Your task to perform on an android device: turn on wifi Image 0: 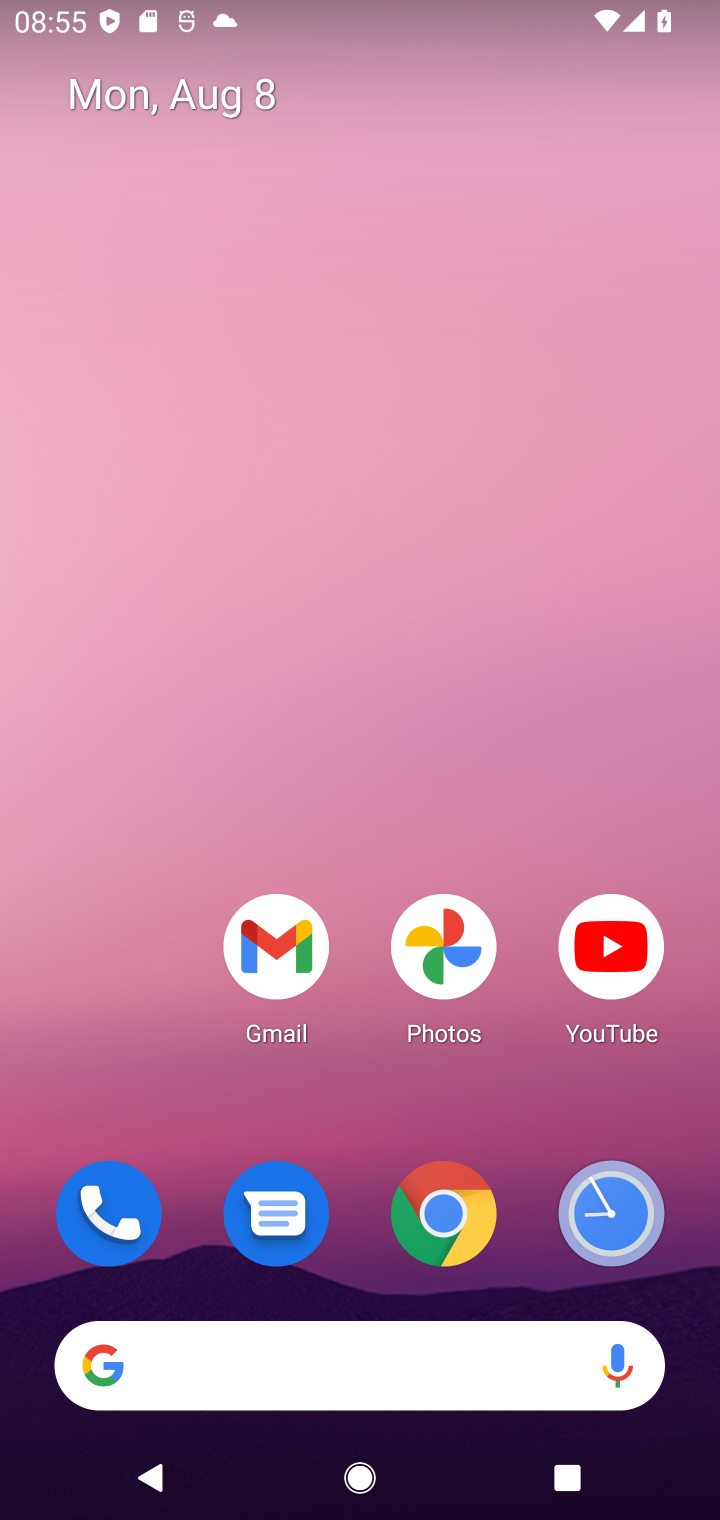
Step 0: drag from (304, 689) to (224, 3)
Your task to perform on an android device: turn on wifi Image 1: 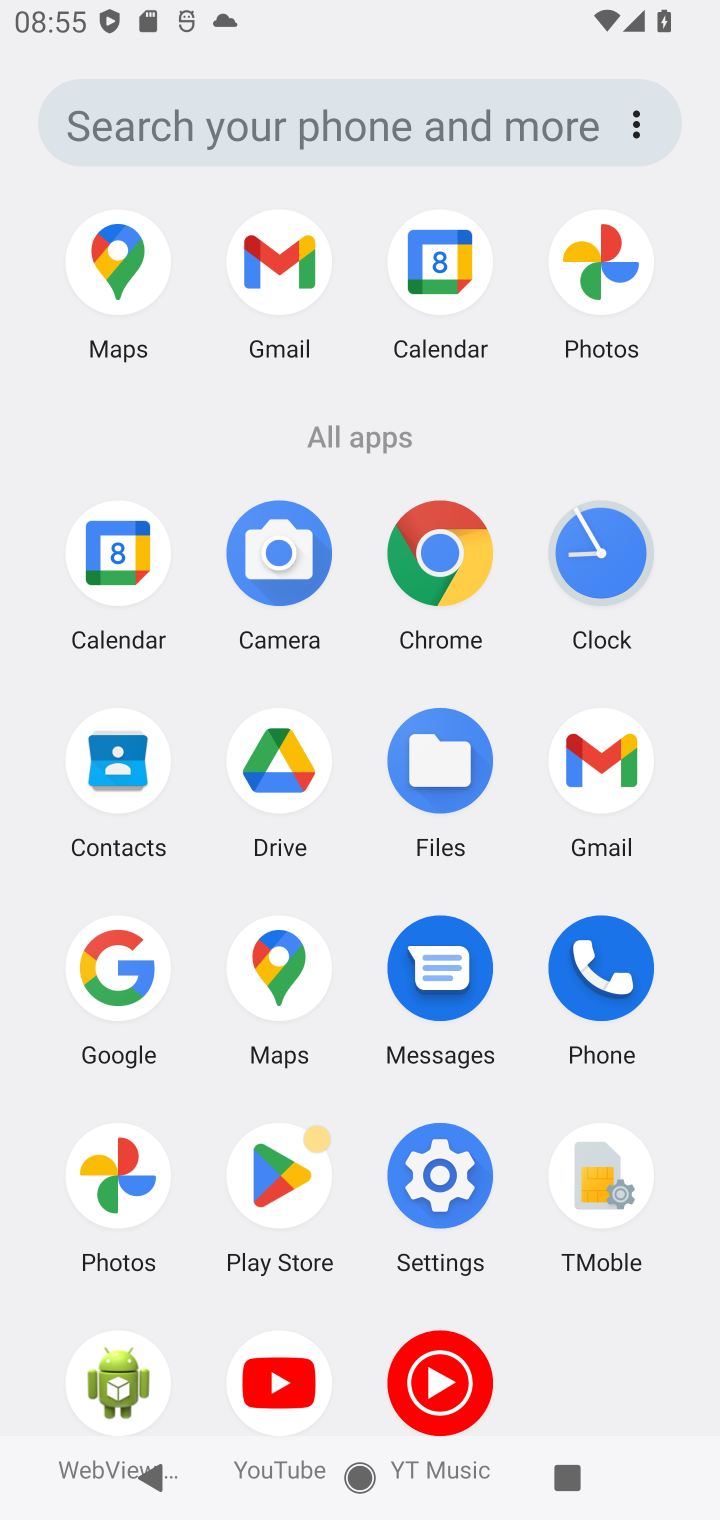
Step 1: task complete